Your task to perform on an android device: Open privacy settings Image 0: 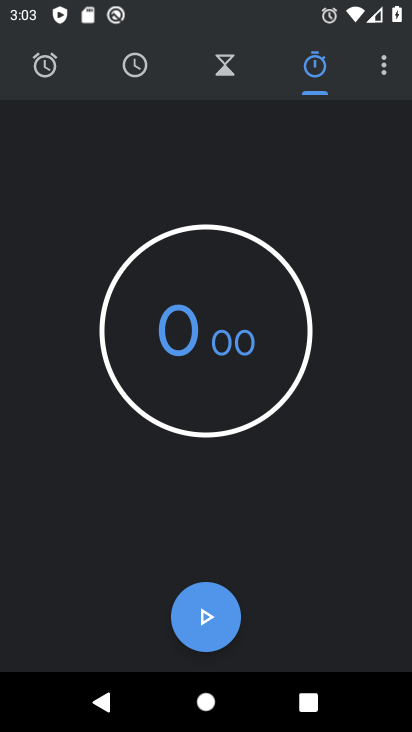
Step 0: press back button
Your task to perform on an android device: Open privacy settings Image 1: 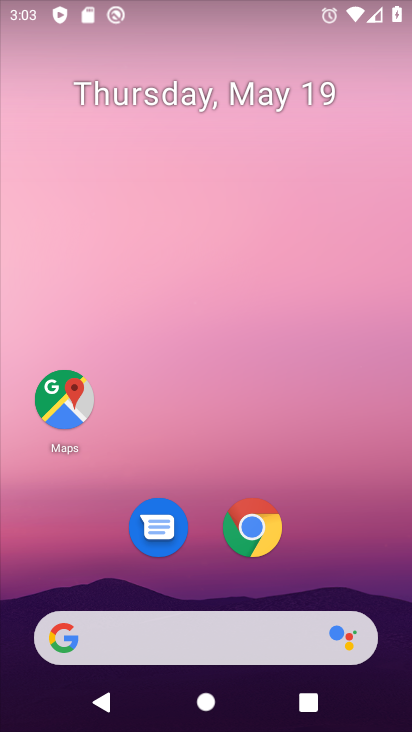
Step 1: click (248, 527)
Your task to perform on an android device: Open privacy settings Image 2: 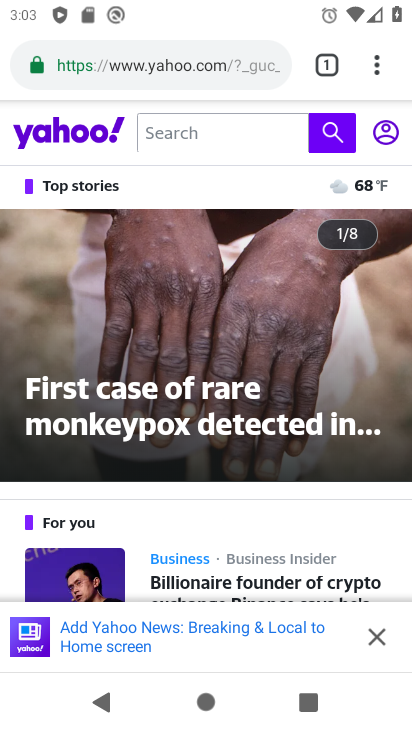
Step 2: drag from (373, 64) to (152, 564)
Your task to perform on an android device: Open privacy settings Image 3: 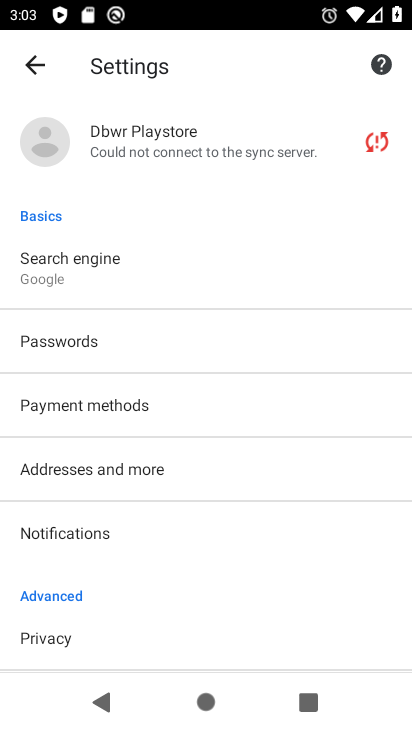
Step 3: click (95, 636)
Your task to perform on an android device: Open privacy settings Image 4: 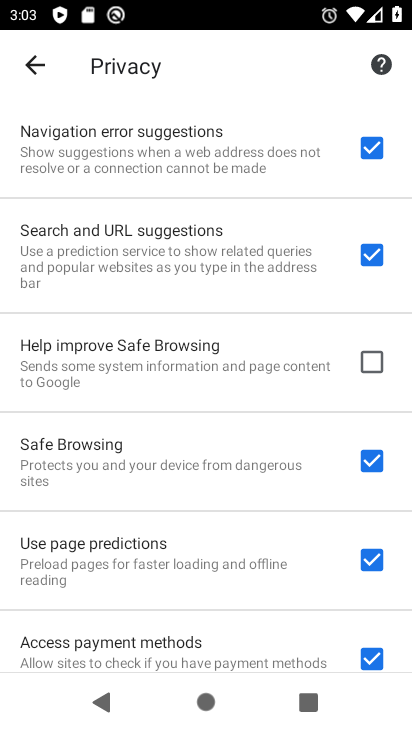
Step 4: task complete